Your task to perform on an android device: visit the assistant section in the google photos Image 0: 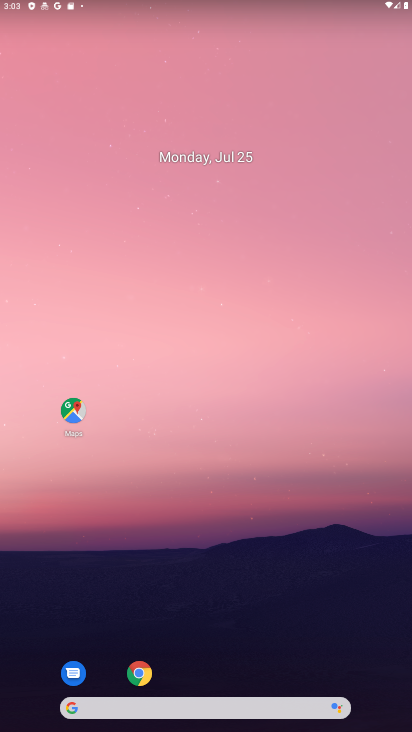
Step 0: drag from (247, 606) to (310, 233)
Your task to perform on an android device: visit the assistant section in the google photos Image 1: 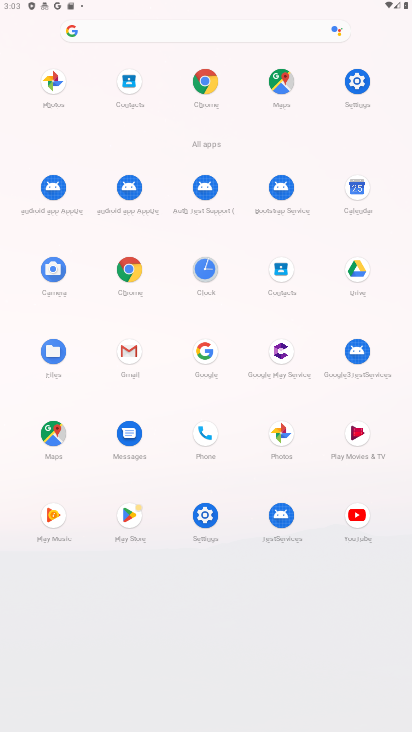
Step 1: click (277, 441)
Your task to perform on an android device: visit the assistant section in the google photos Image 2: 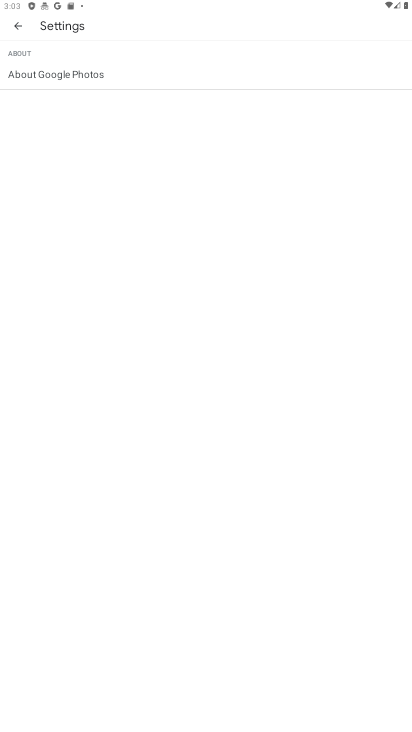
Step 2: task complete